Your task to perform on an android device: uninstall "Etsy: Buy & Sell Unique Items" Image 0: 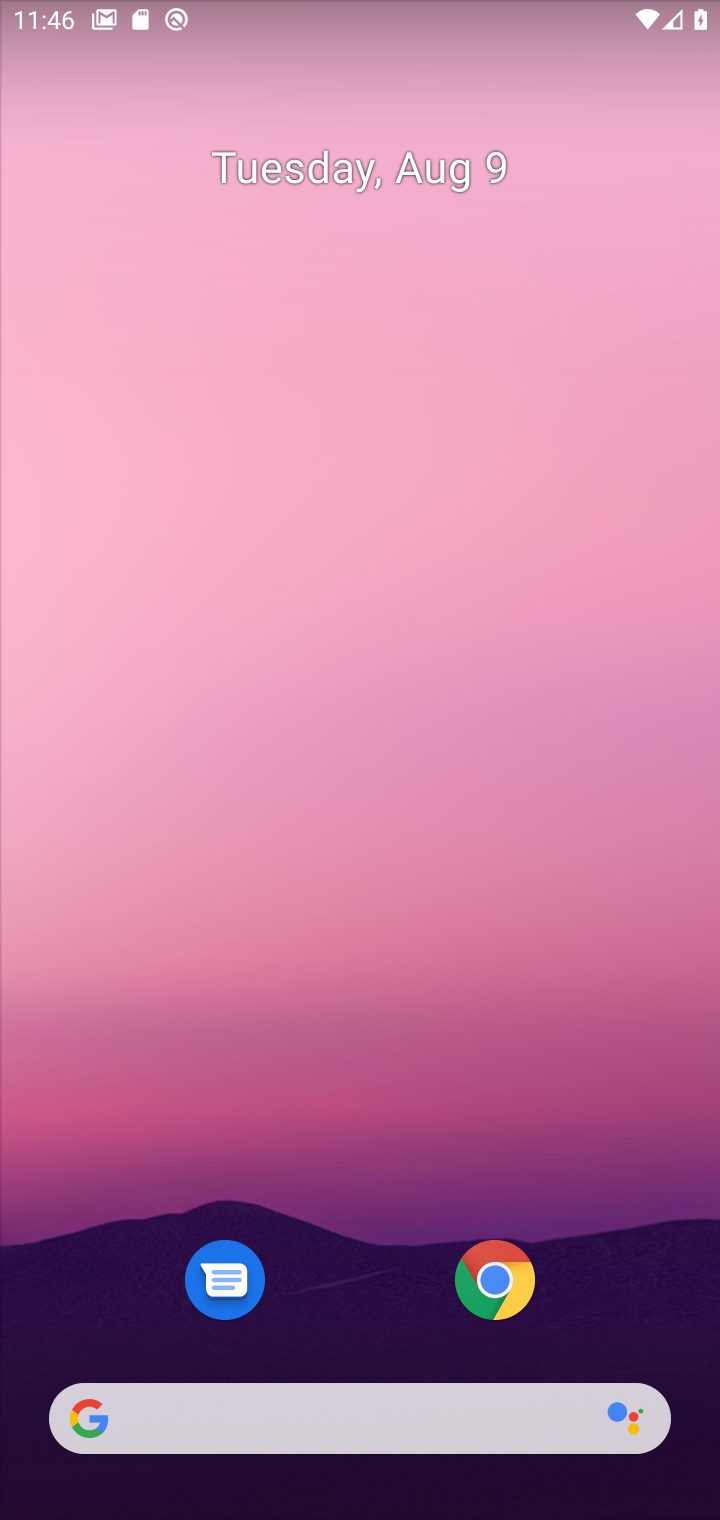
Step 0: drag from (327, 1357) to (677, 224)
Your task to perform on an android device: uninstall "Etsy: Buy & Sell Unique Items" Image 1: 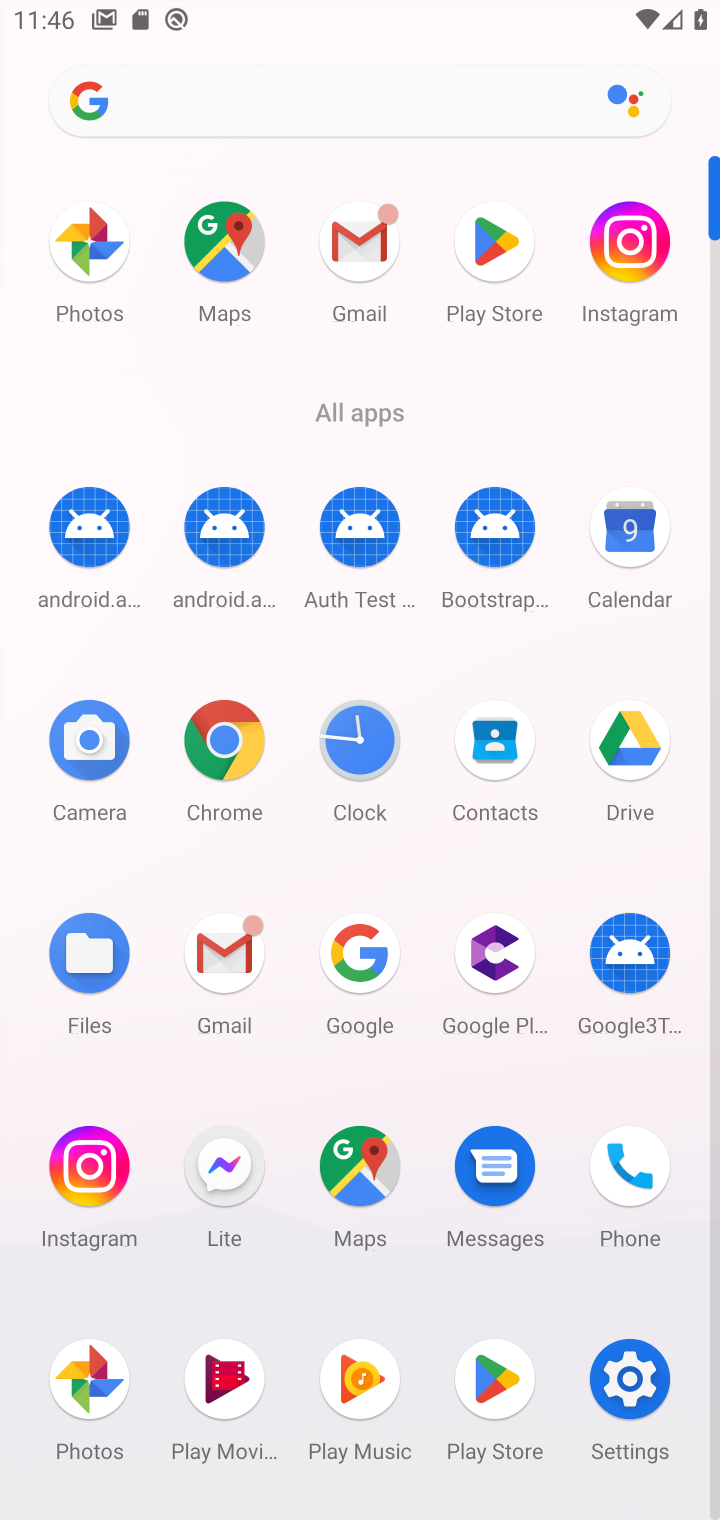
Step 1: click (483, 248)
Your task to perform on an android device: uninstall "Etsy: Buy & Sell Unique Items" Image 2: 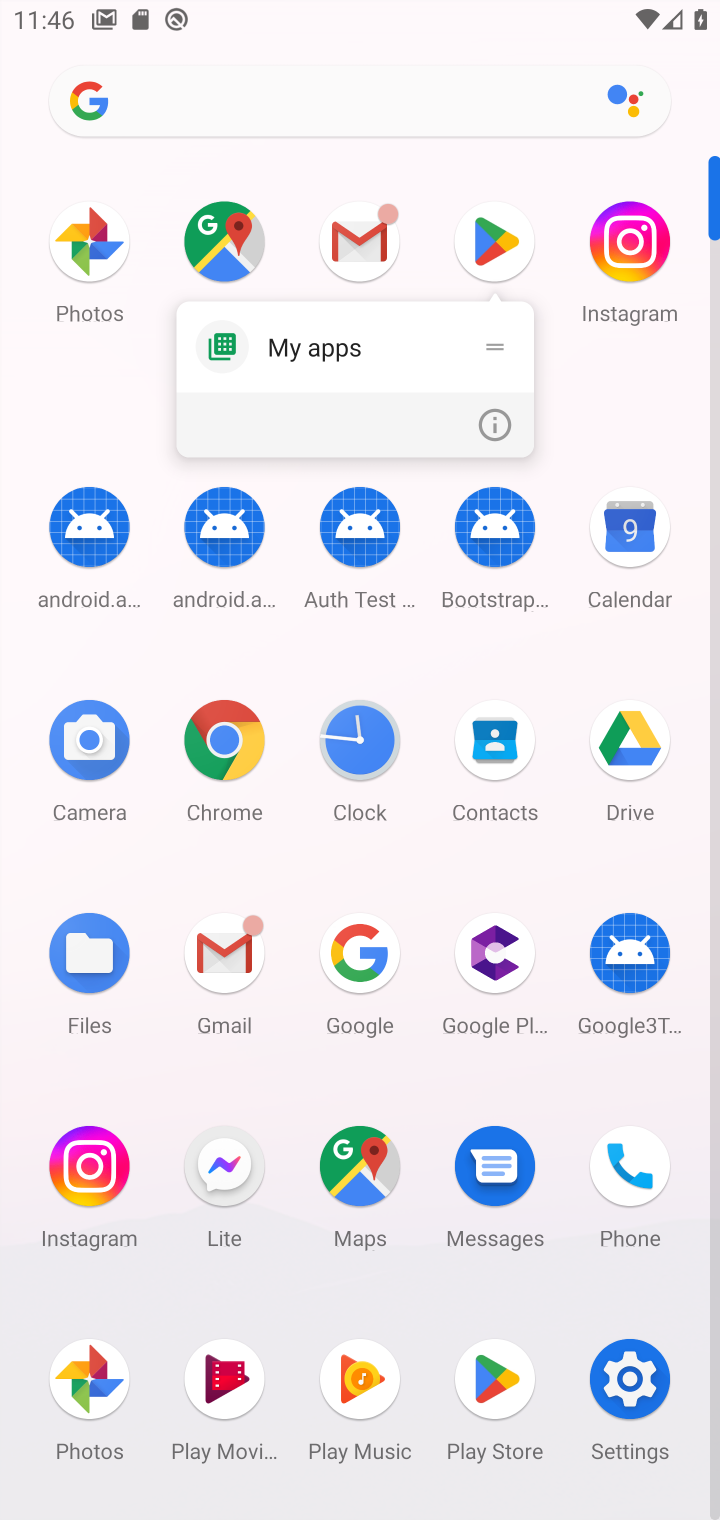
Step 2: click (499, 254)
Your task to perform on an android device: uninstall "Etsy: Buy & Sell Unique Items" Image 3: 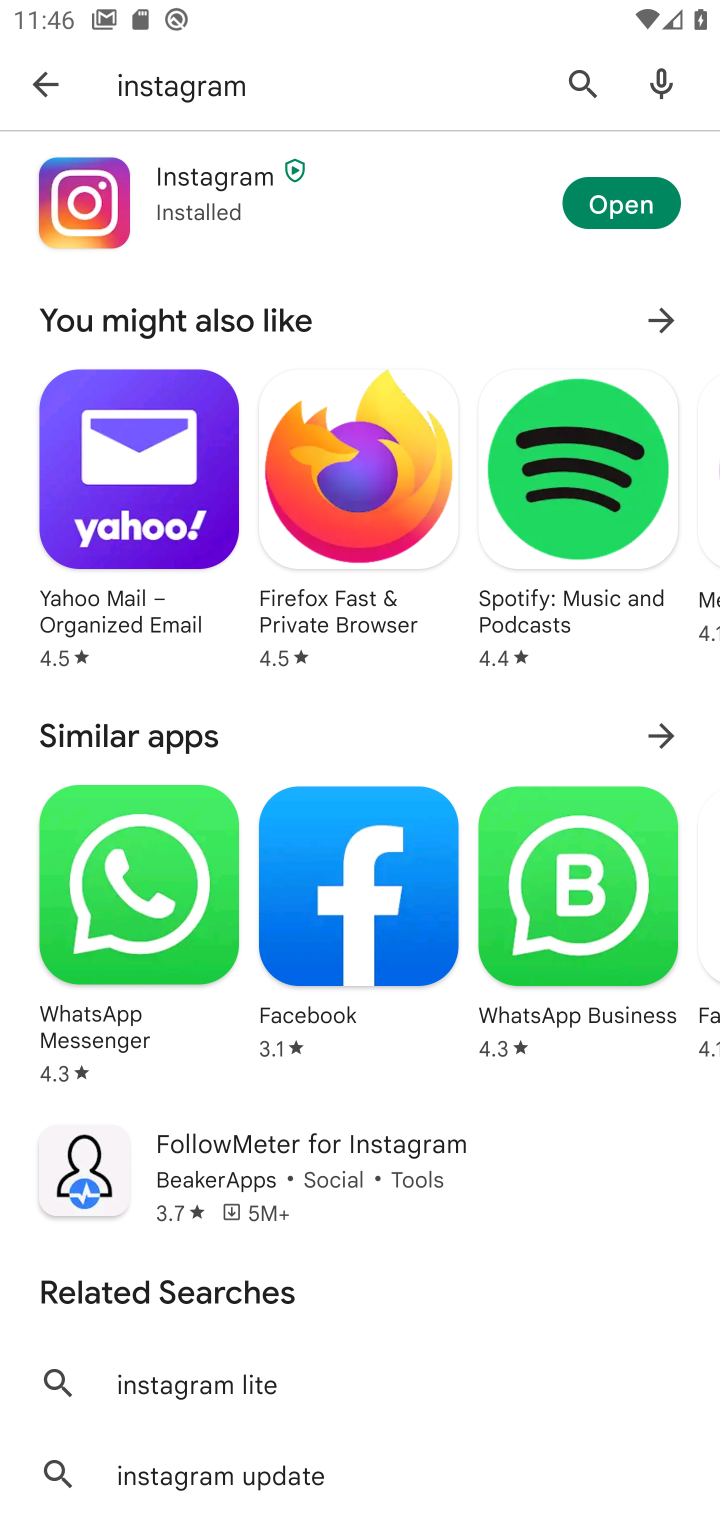
Step 3: click (566, 75)
Your task to perform on an android device: uninstall "Etsy: Buy & Sell Unique Items" Image 4: 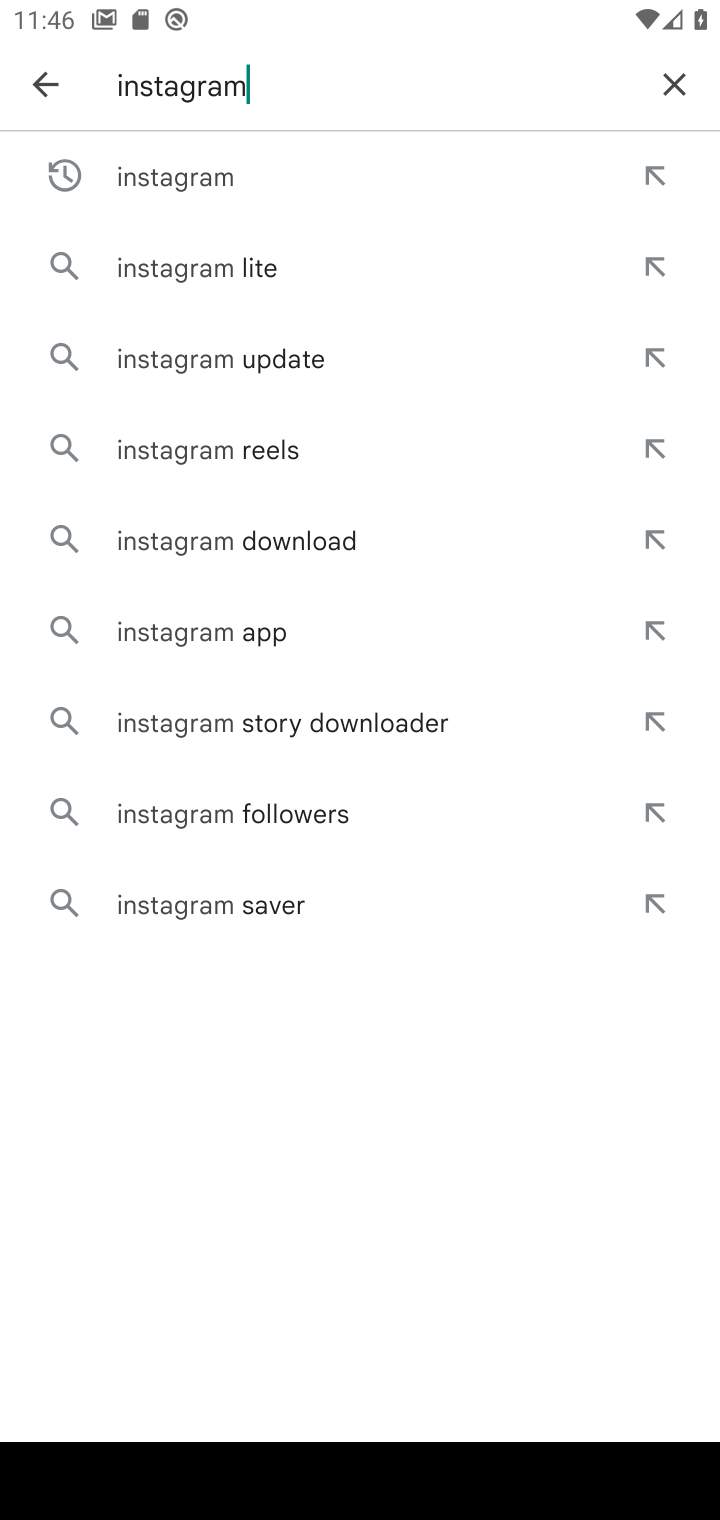
Step 4: click (681, 74)
Your task to perform on an android device: uninstall "Etsy: Buy & Sell Unique Items" Image 5: 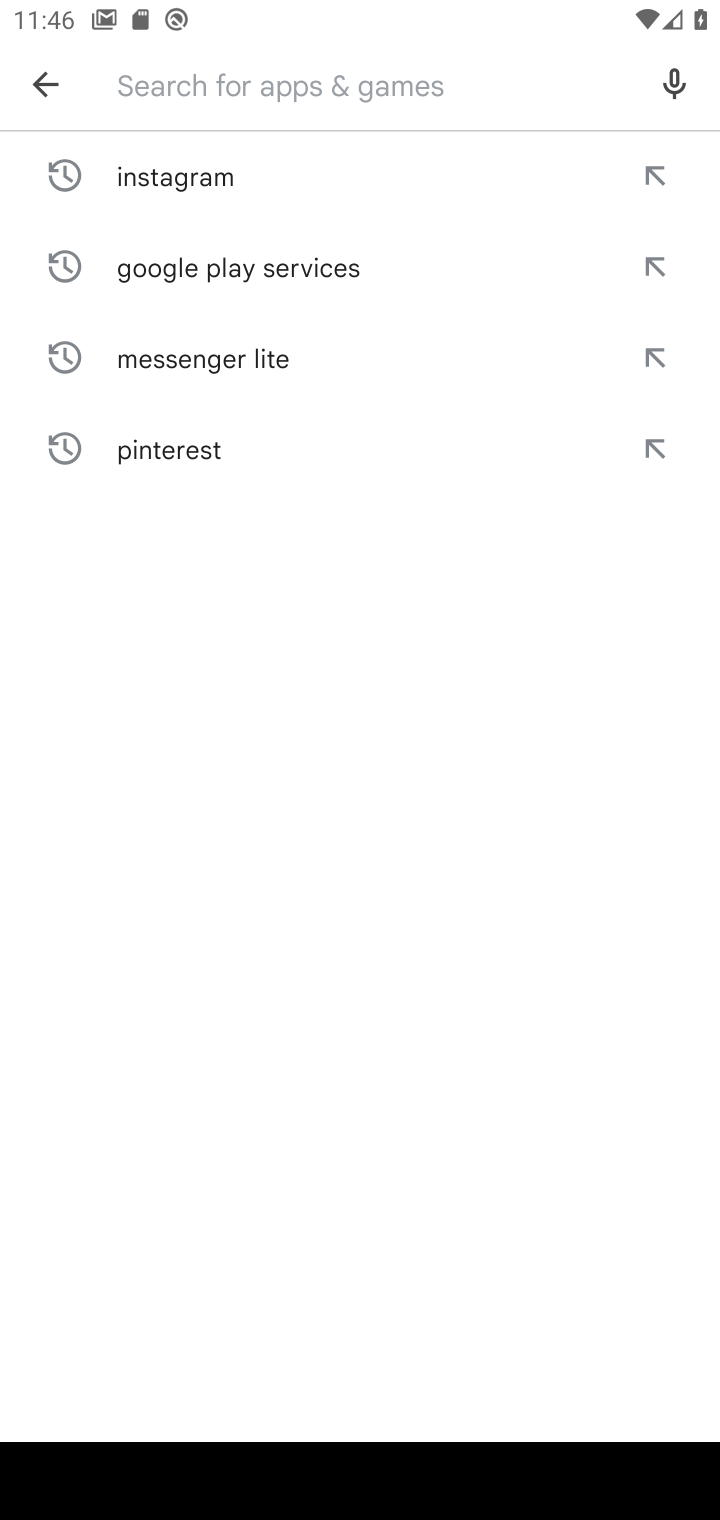
Step 5: click (280, 64)
Your task to perform on an android device: uninstall "Etsy: Buy & Sell Unique Items" Image 6: 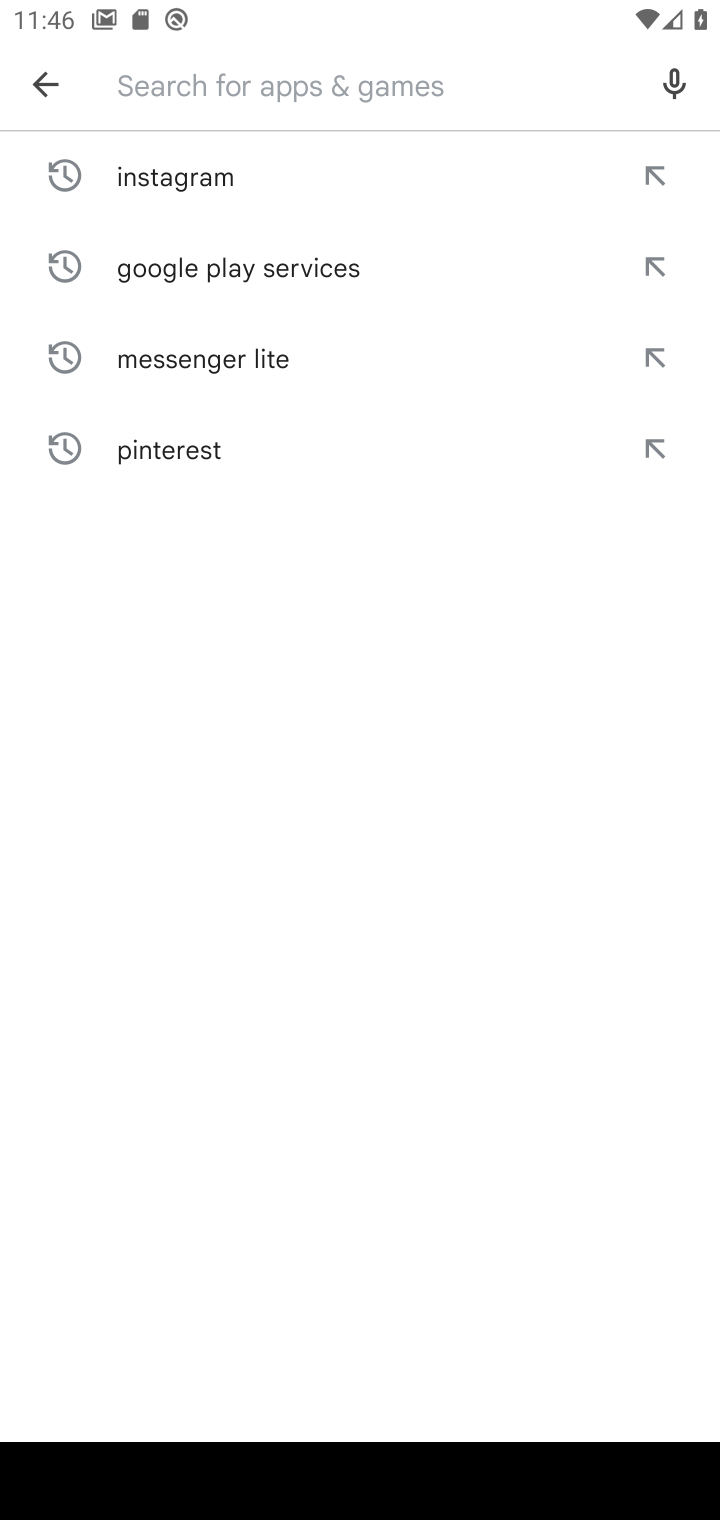
Step 6: type "etsy"
Your task to perform on an android device: uninstall "Etsy: Buy & Sell Unique Items" Image 7: 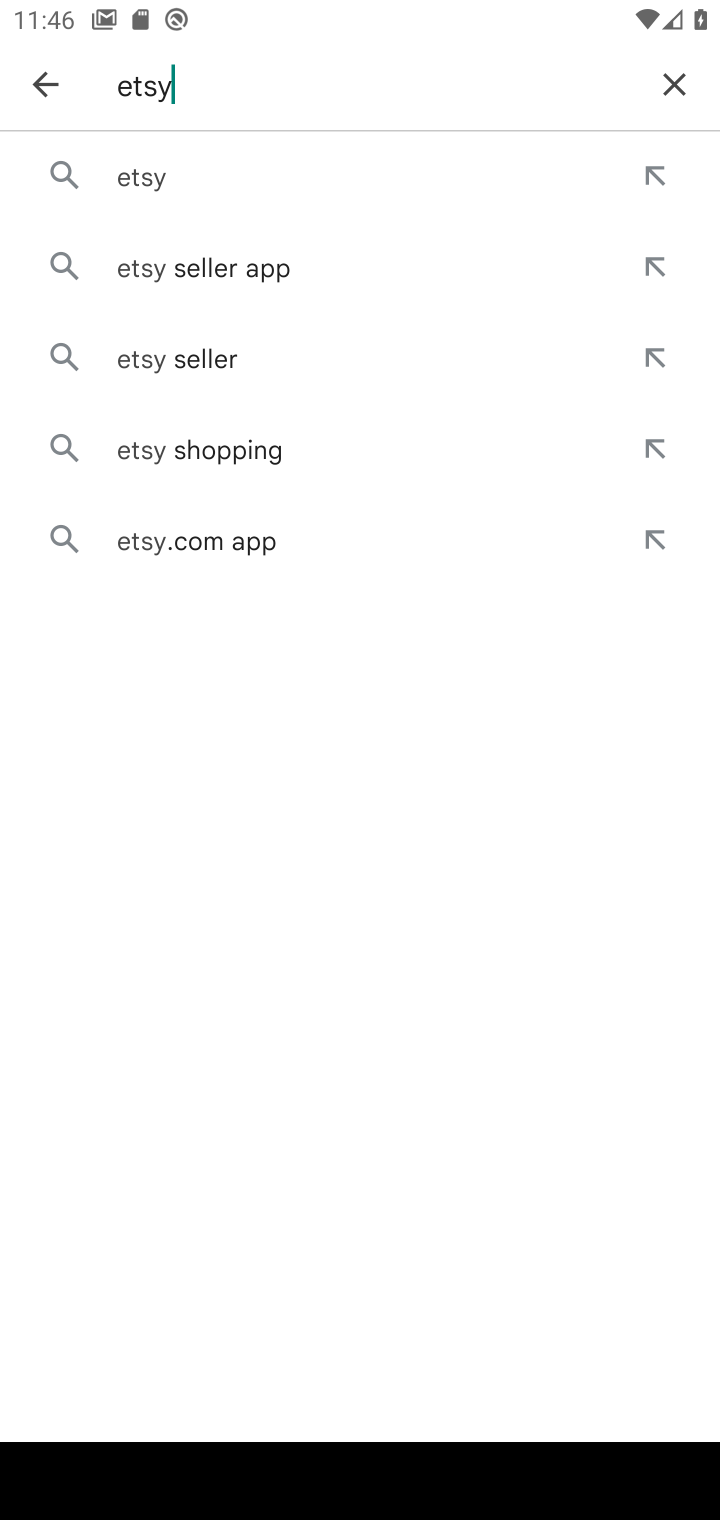
Step 7: click (181, 187)
Your task to perform on an android device: uninstall "Etsy: Buy & Sell Unique Items" Image 8: 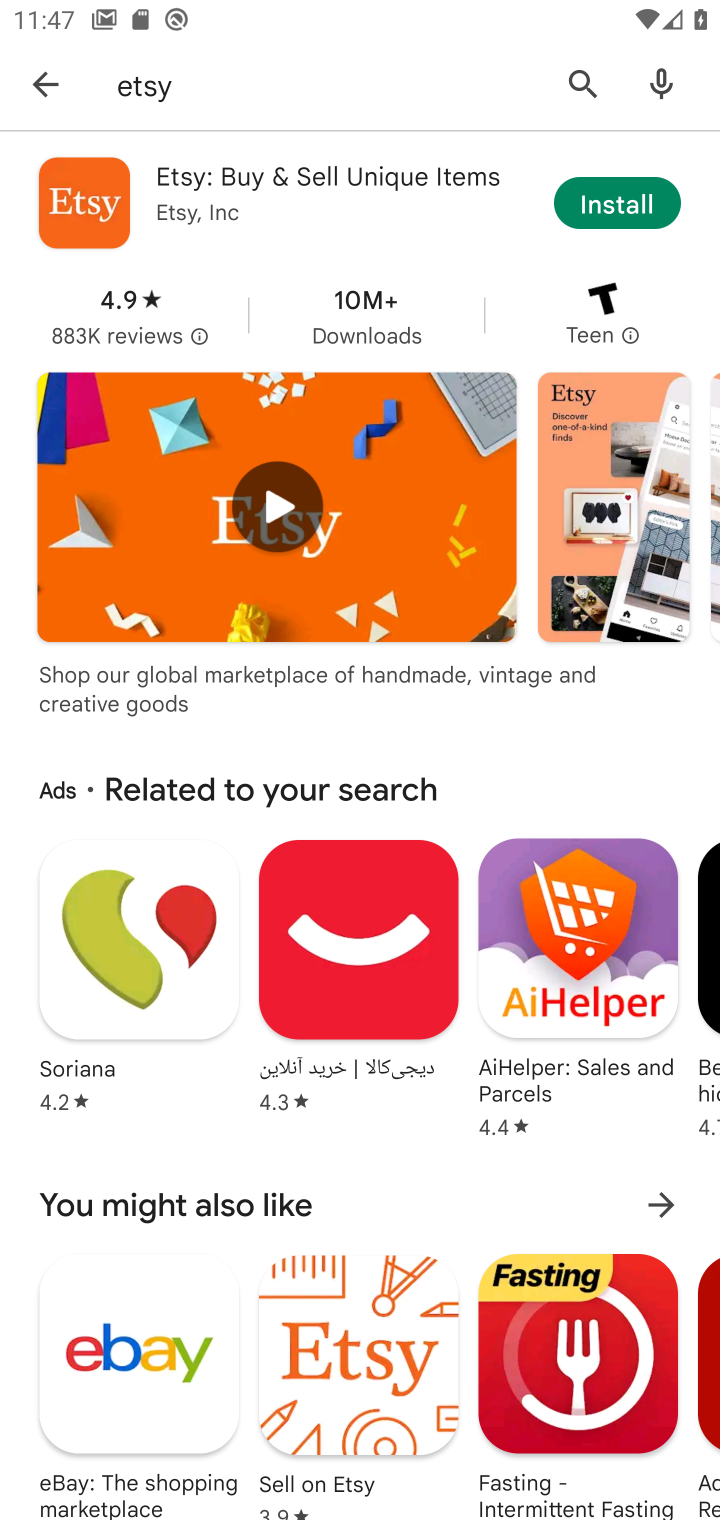
Step 8: task complete